Your task to perform on an android device: Go to ESPN.com Image 0: 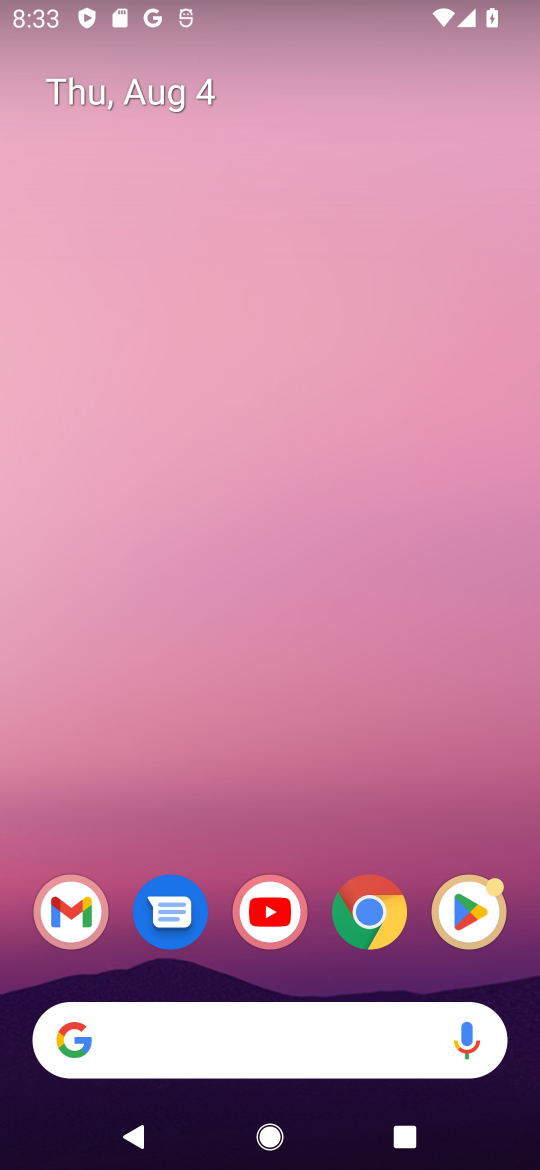
Step 0: click (371, 905)
Your task to perform on an android device: Go to ESPN.com Image 1: 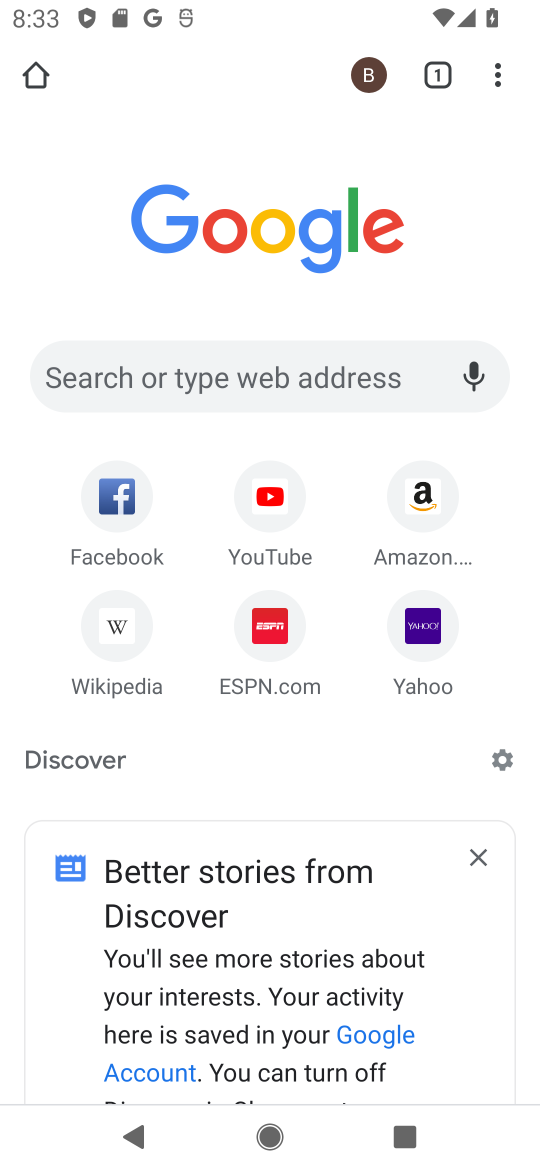
Step 1: click (253, 642)
Your task to perform on an android device: Go to ESPN.com Image 2: 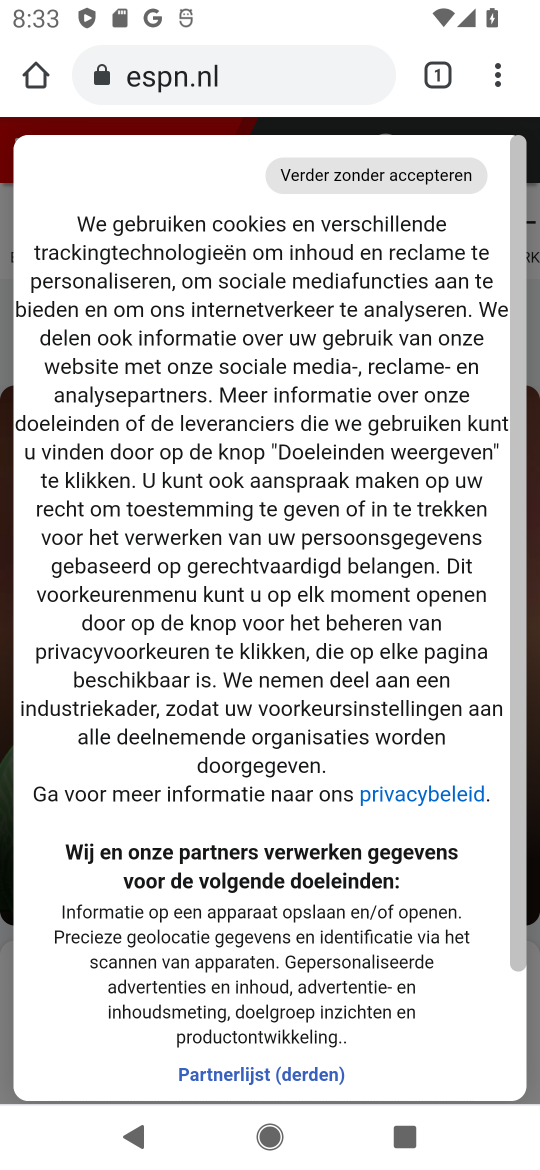
Step 2: task complete